Your task to perform on an android device: Open location settings Image 0: 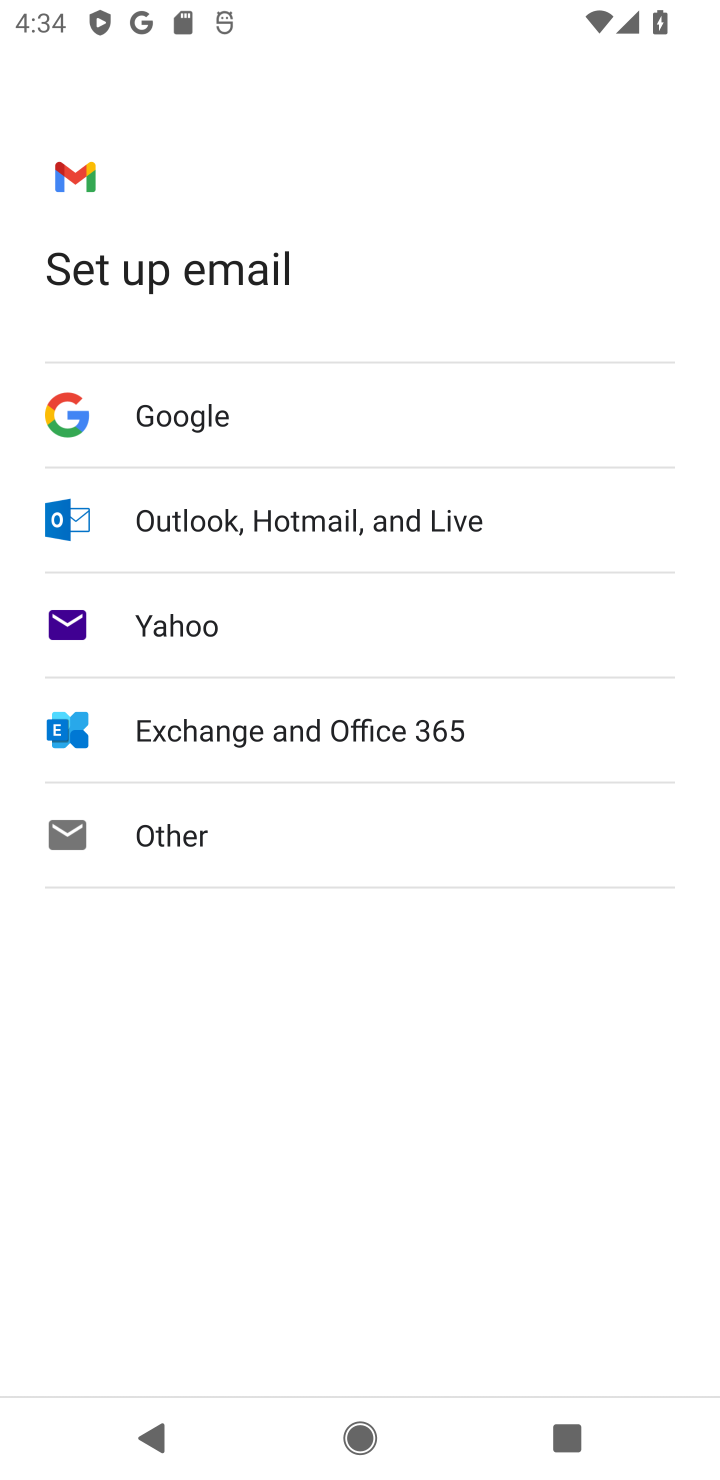
Step 0: press home button
Your task to perform on an android device: Open location settings Image 1: 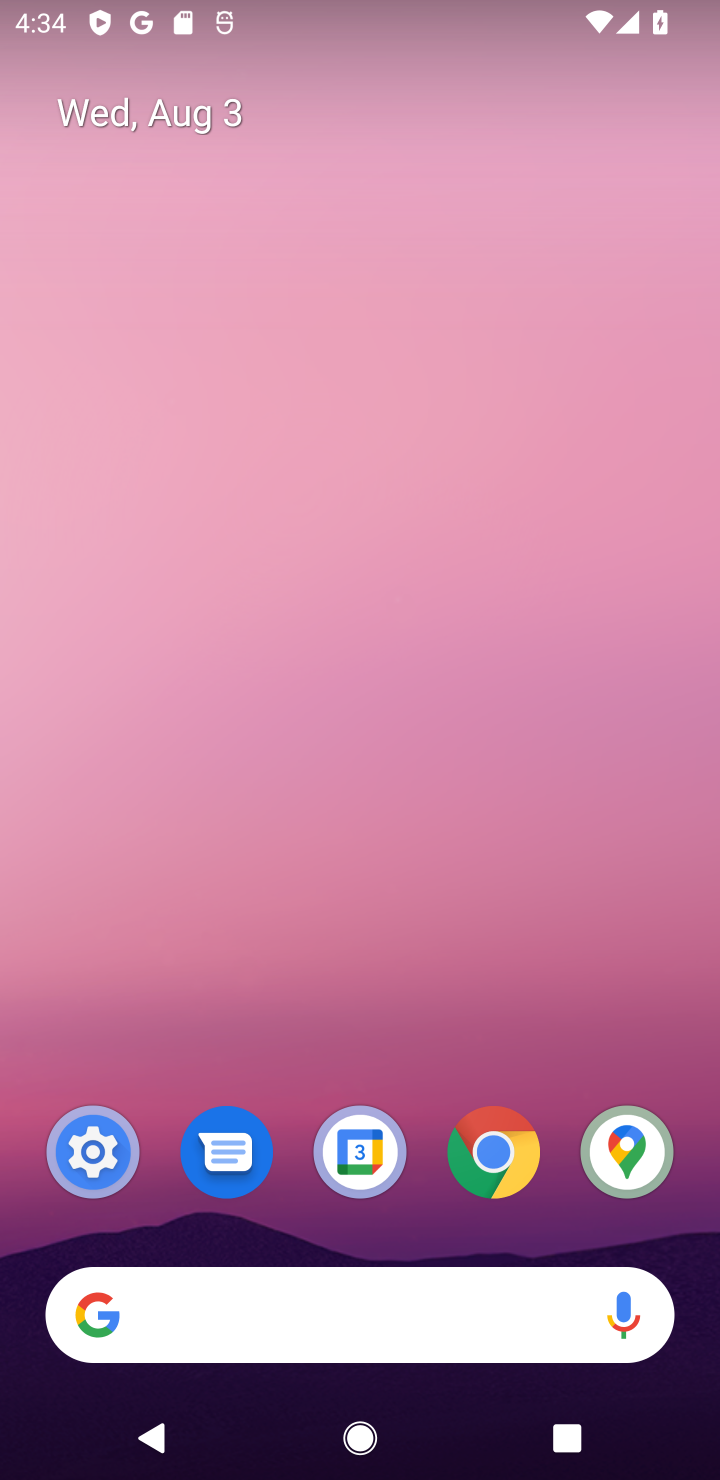
Step 1: click (74, 1132)
Your task to perform on an android device: Open location settings Image 2: 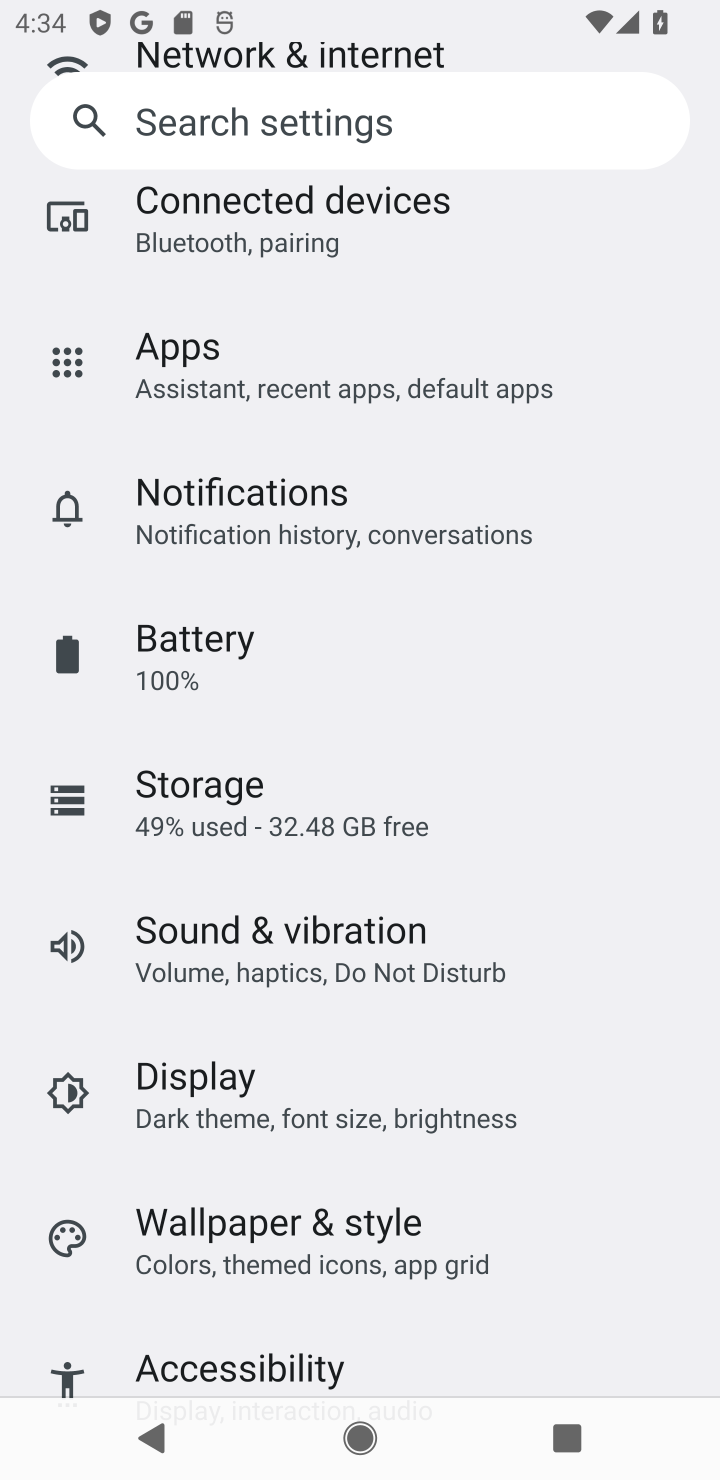
Step 2: drag from (276, 1054) to (334, 565)
Your task to perform on an android device: Open location settings Image 3: 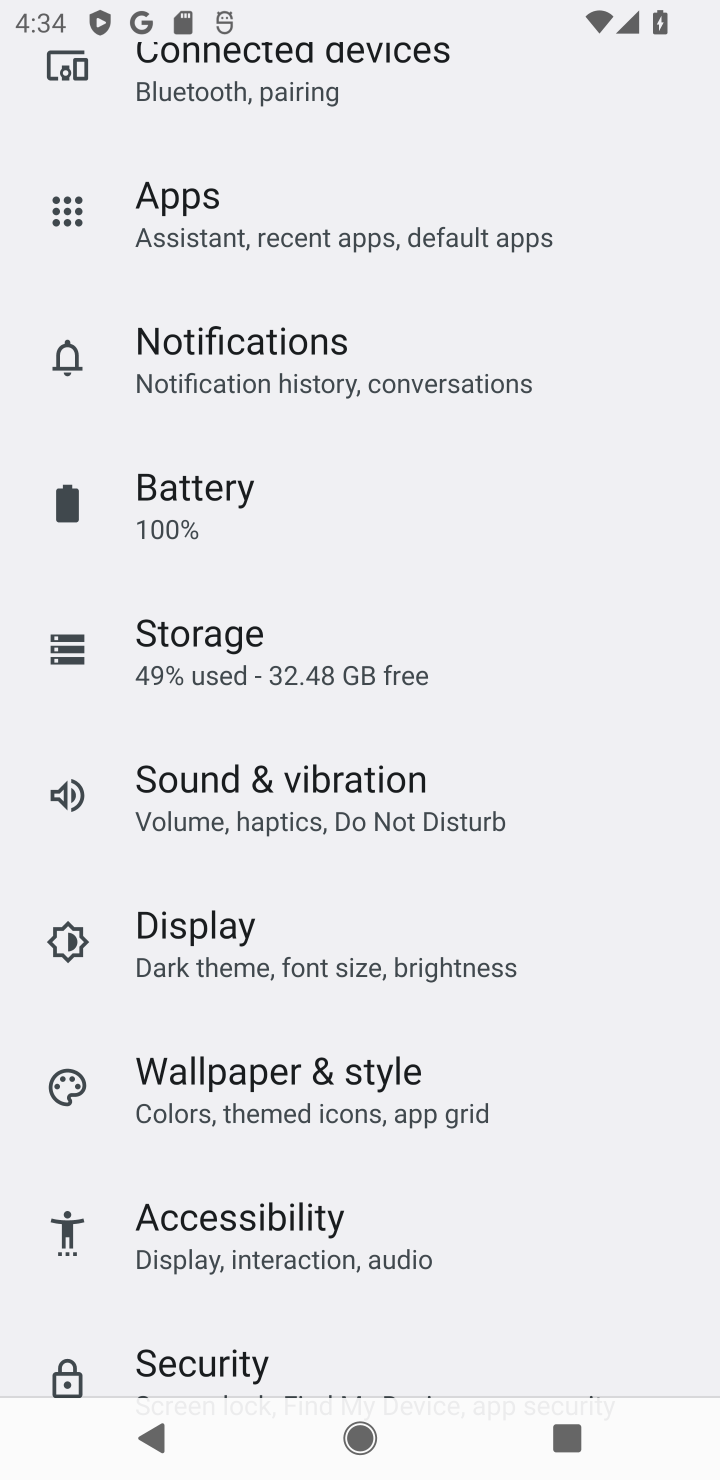
Step 3: drag from (272, 233) to (316, 803)
Your task to perform on an android device: Open location settings Image 4: 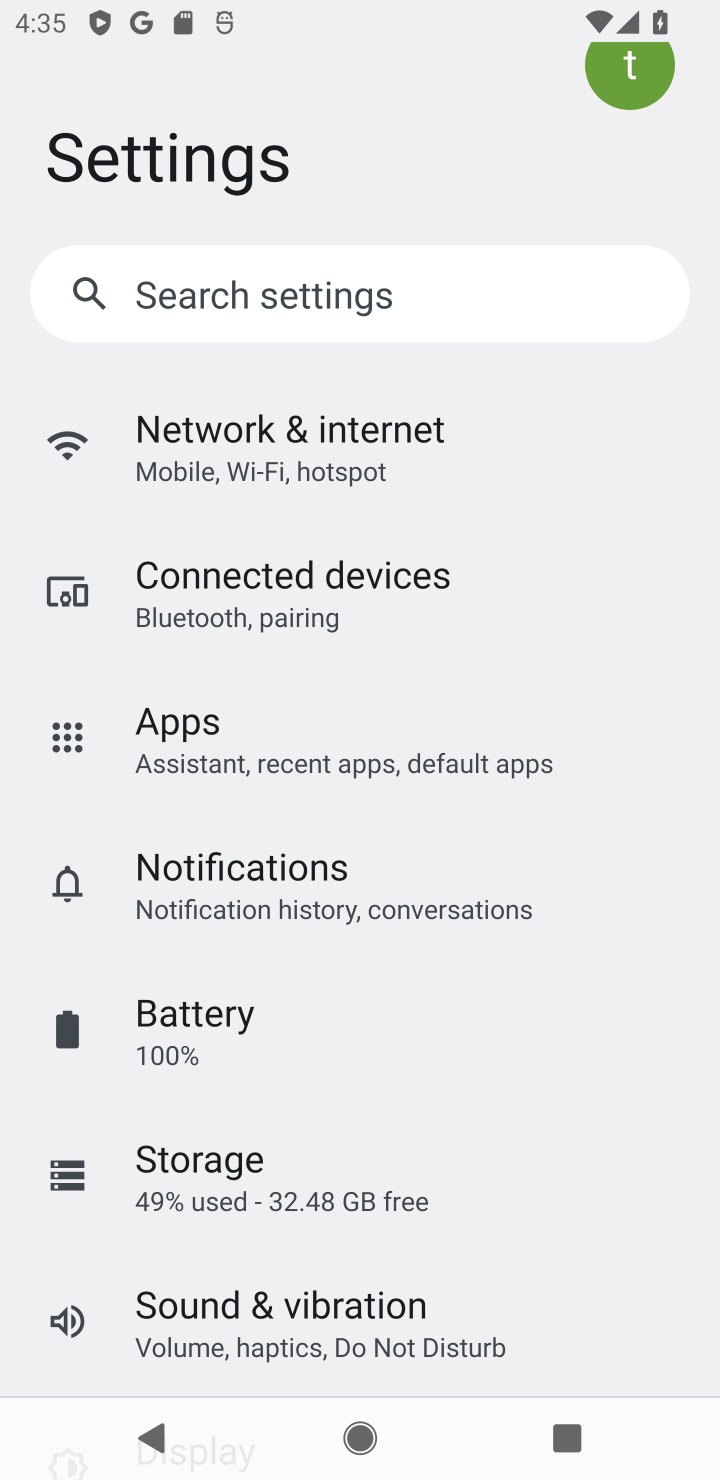
Step 4: drag from (278, 1243) to (264, 140)
Your task to perform on an android device: Open location settings Image 5: 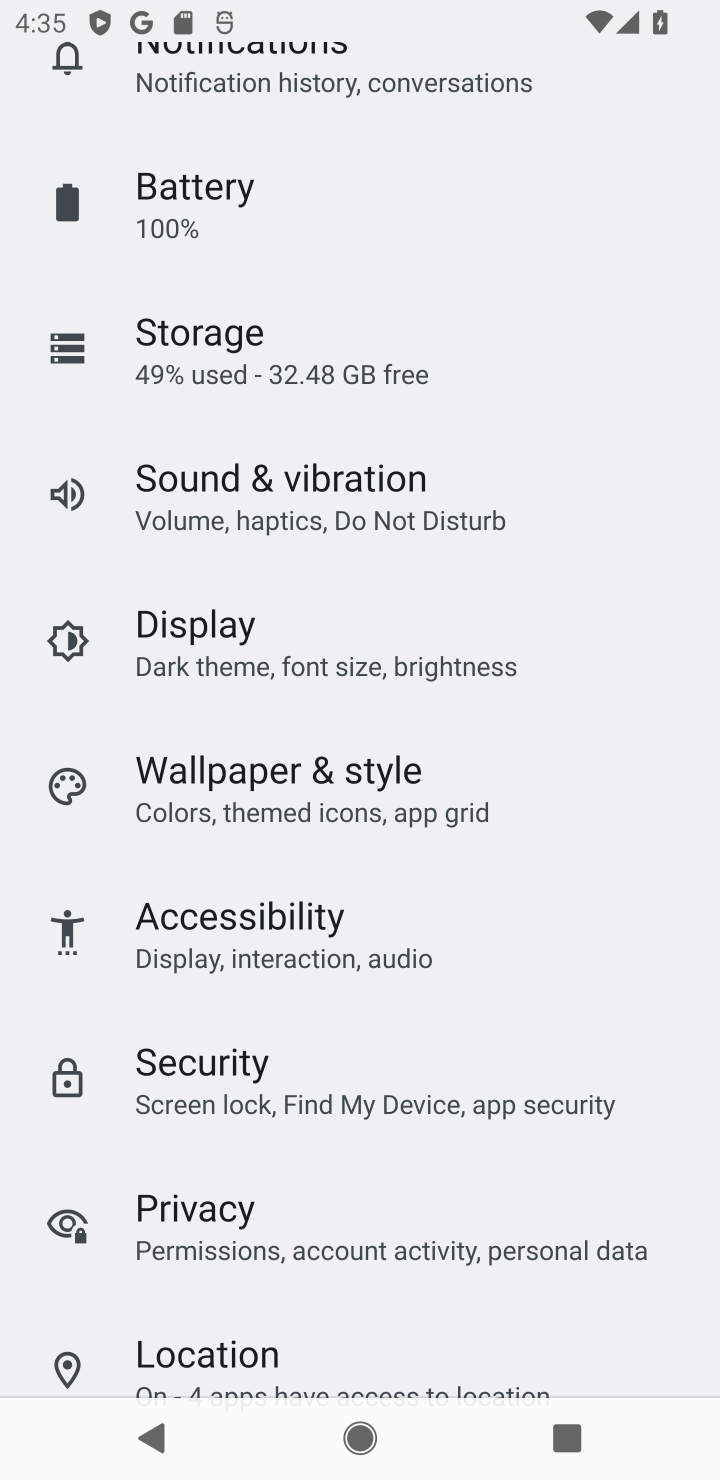
Step 5: click (222, 1351)
Your task to perform on an android device: Open location settings Image 6: 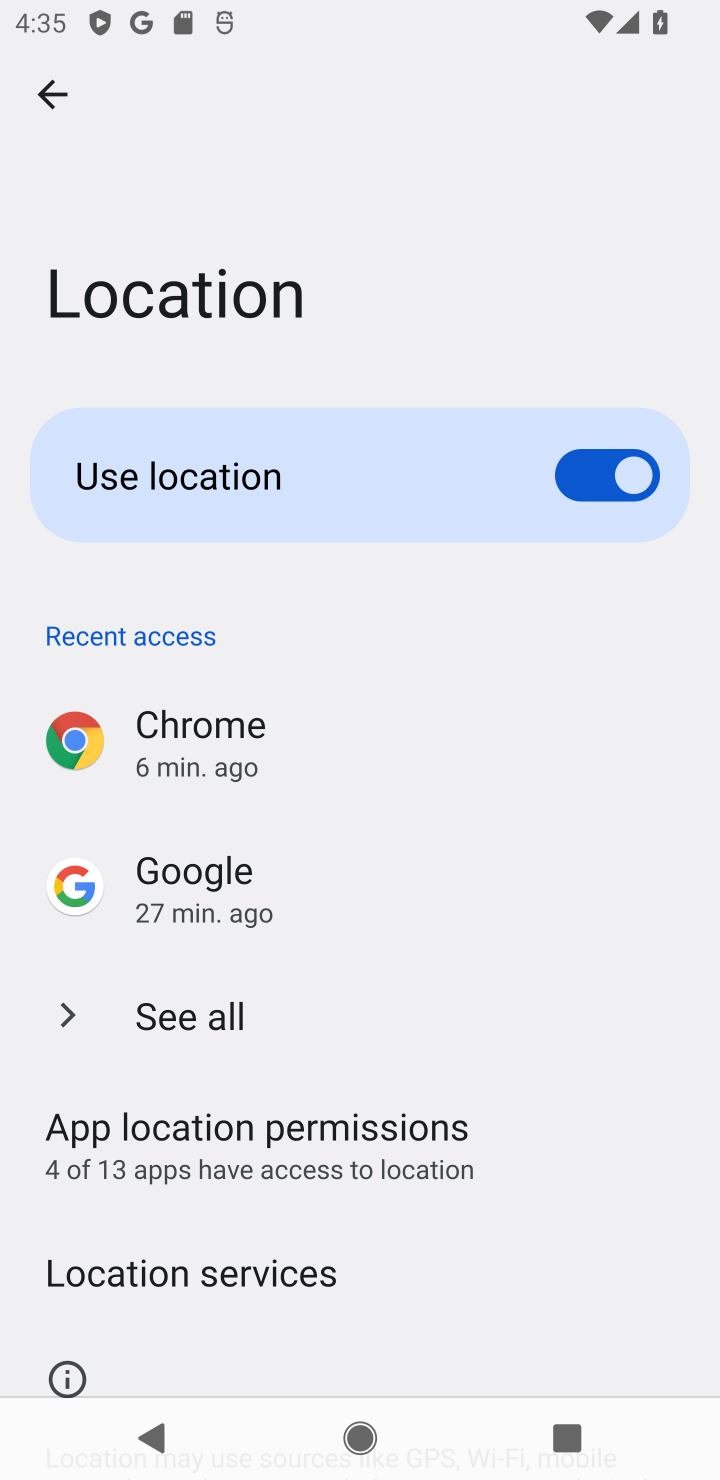
Step 6: task complete